Your task to perform on an android device: When is my next appointment? Image 0: 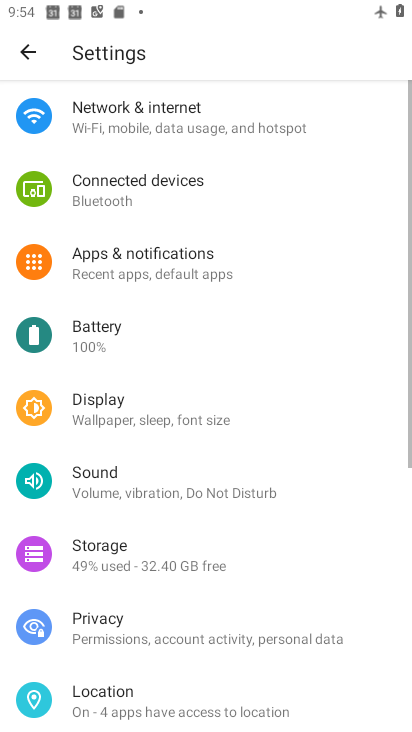
Step 0: press home button
Your task to perform on an android device: When is my next appointment? Image 1: 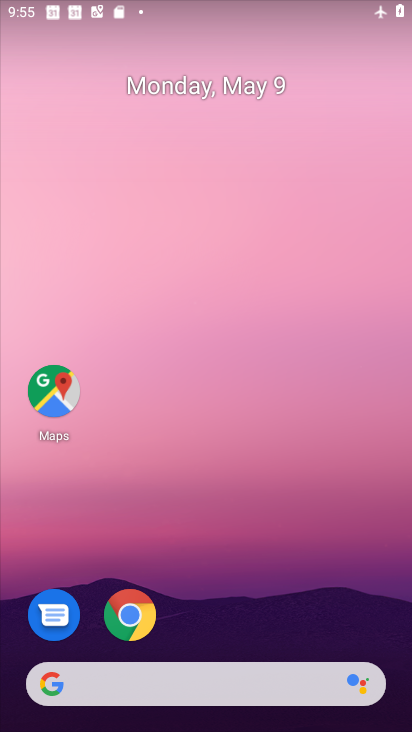
Step 1: drag from (239, 713) to (300, 115)
Your task to perform on an android device: When is my next appointment? Image 2: 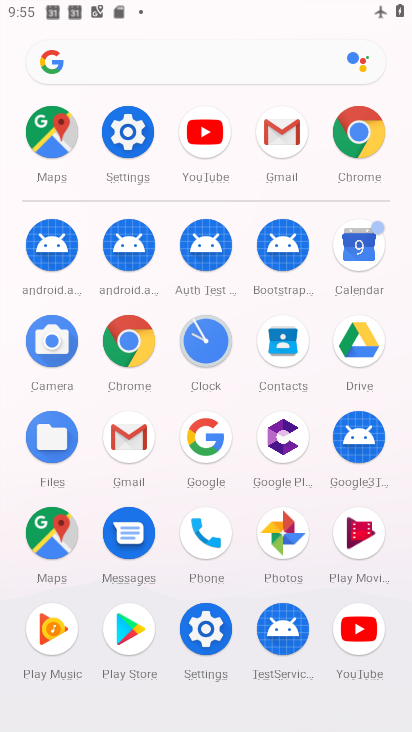
Step 2: click (358, 259)
Your task to perform on an android device: When is my next appointment? Image 3: 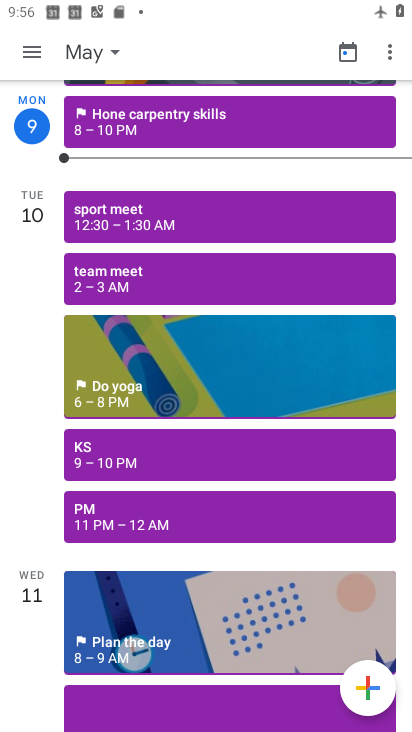
Step 3: task complete